Your task to perform on an android device: Go to display settings Image 0: 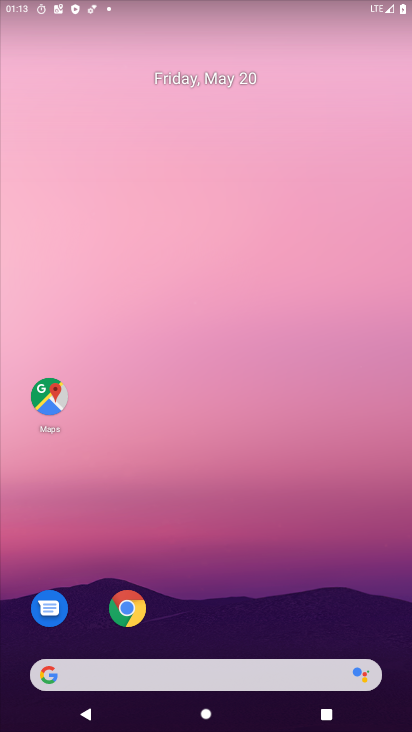
Step 0: drag from (343, 581) to (356, 185)
Your task to perform on an android device: Go to display settings Image 1: 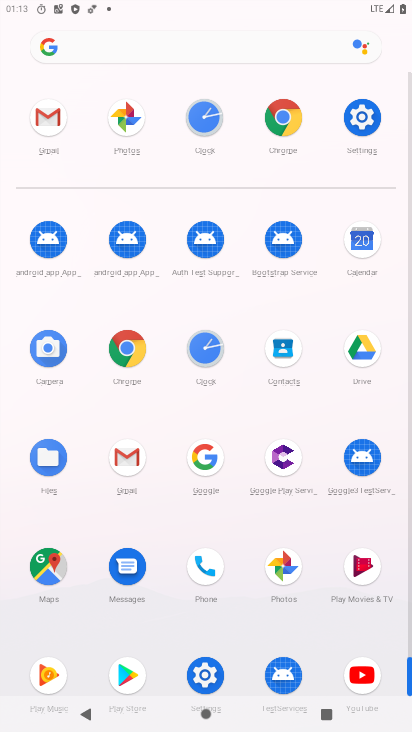
Step 1: click (372, 123)
Your task to perform on an android device: Go to display settings Image 2: 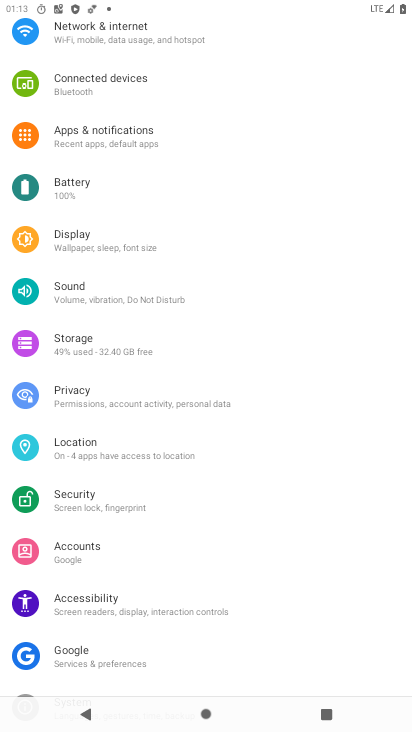
Step 2: click (141, 256)
Your task to perform on an android device: Go to display settings Image 3: 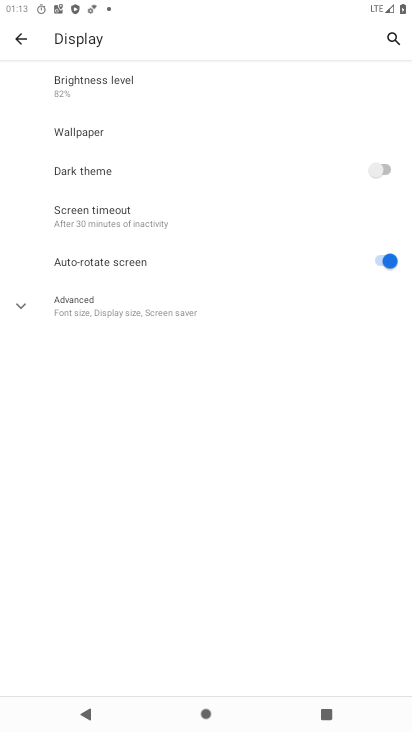
Step 3: task complete